Your task to perform on an android device: turn on wifi Image 0: 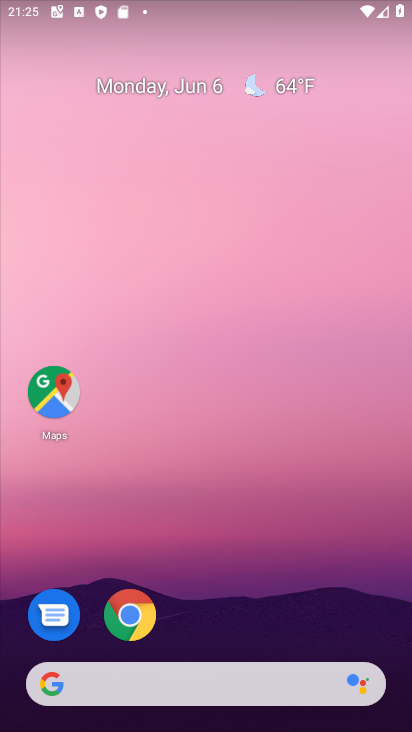
Step 0: drag from (374, 618) to (353, 16)
Your task to perform on an android device: turn on wifi Image 1: 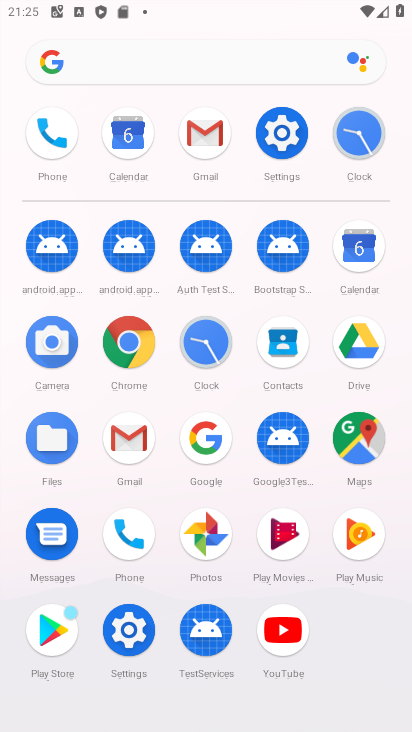
Step 1: click (287, 138)
Your task to perform on an android device: turn on wifi Image 2: 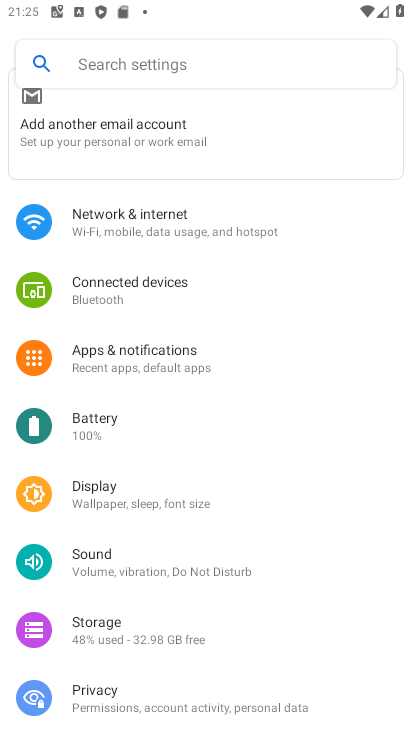
Step 2: click (149, 220)
Your task to perform on an android device: turn on wifi Image 3: 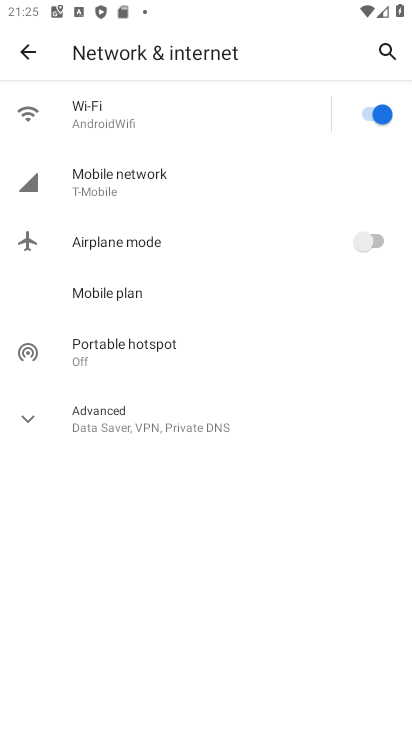
Step 3: task complete